Your task to perform on an android device: check storage Image 0: 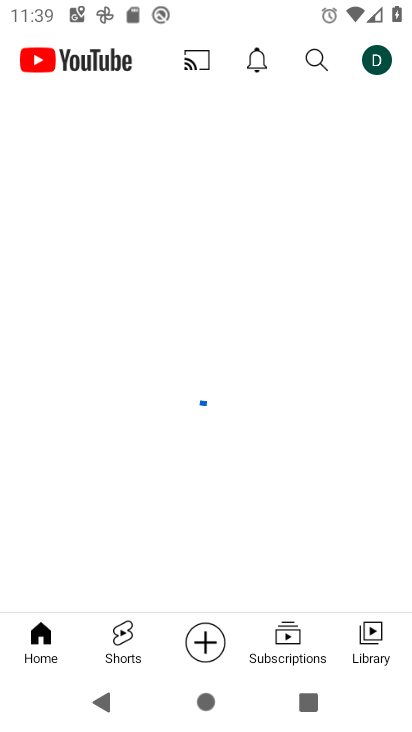
Step 0: press home button
Your task to perform on an android device: check storage Image 1: 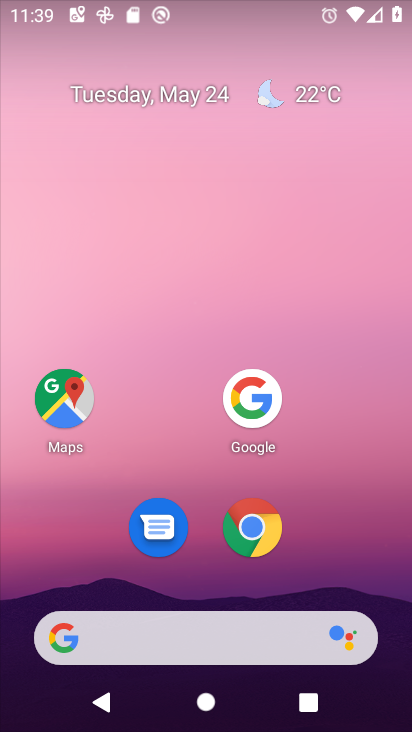
Step 1: drag from (153, 625) to (267, 78)
Your task to perform on an android device: check storage Image 2: 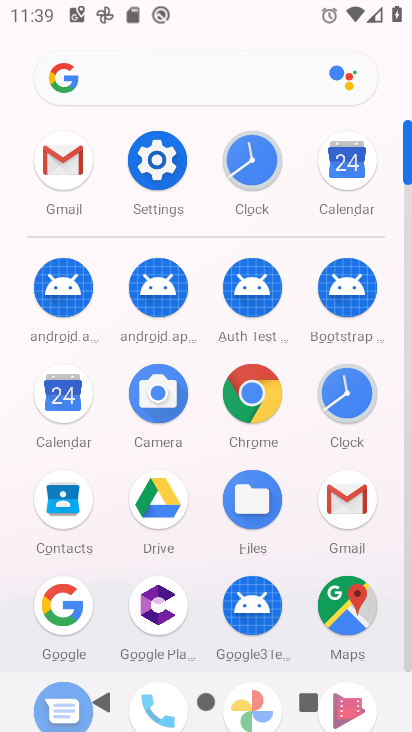
Step 2: click (176, 165)
Your task to perform on an android device: check storage Image 3: 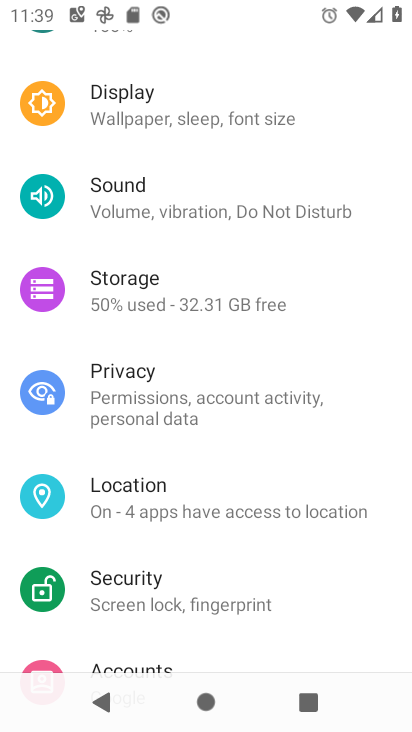
Step 3: click (185, 279)
Your task to perform on an android device: check storage Image 4: 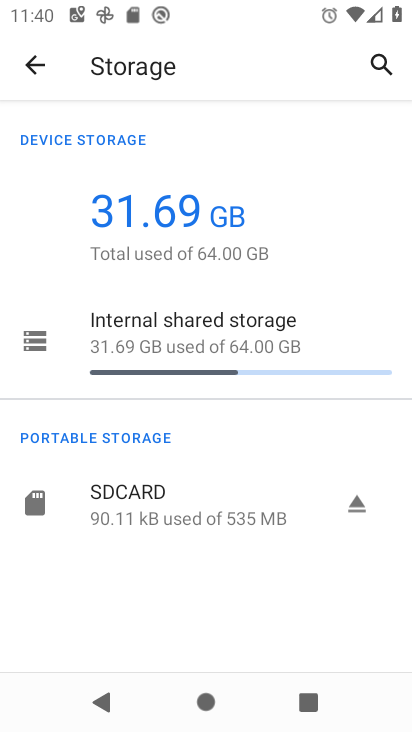
Step 4: task complete